Your task to perform on an android device: Open Reddit.com Image 0: 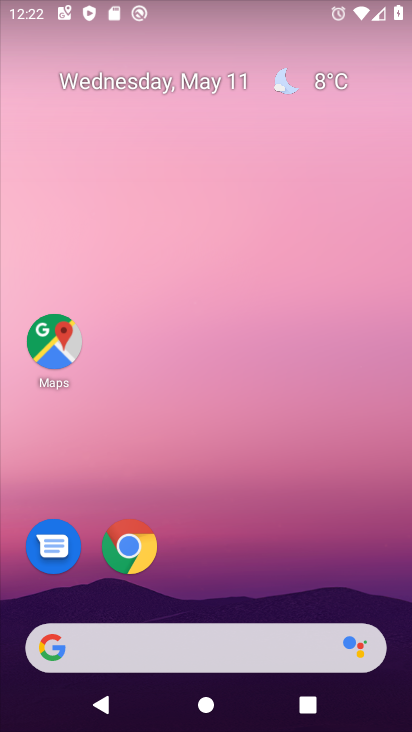
Step 0: drag from (241, 661) to (248, 158)
Your task to perform on an android device: Open Reddit.com Image 1: 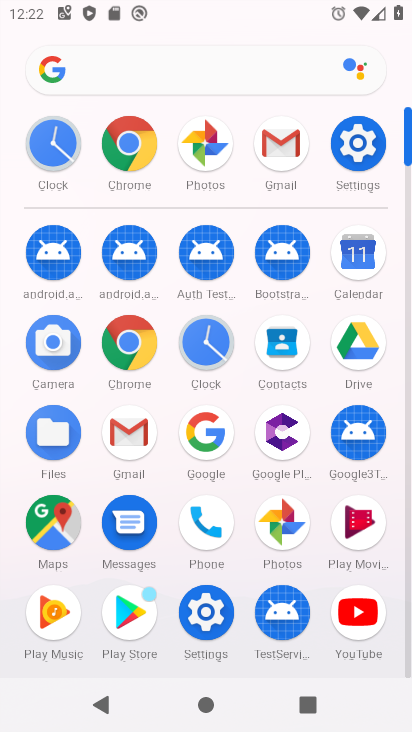
Step 1: click (137, 155)
Your task to perform on an android device: Open Reddit.com Image 2: 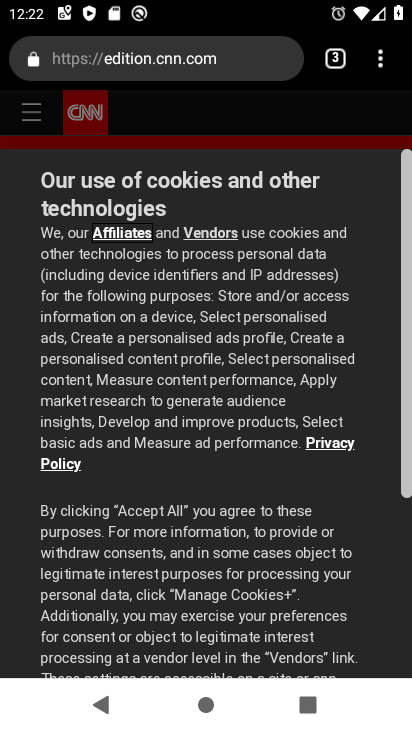
Step 2: drag from (381, 69) to (304, 108)
Your task to perform on an android device: Open Reddit.com Image 3: 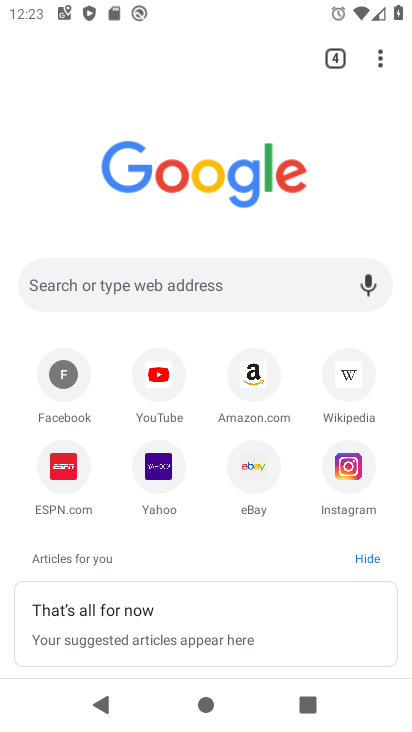
Step 3: click (218, 286)
Your task to perform on an android device: Open Reddit.com Image 4: 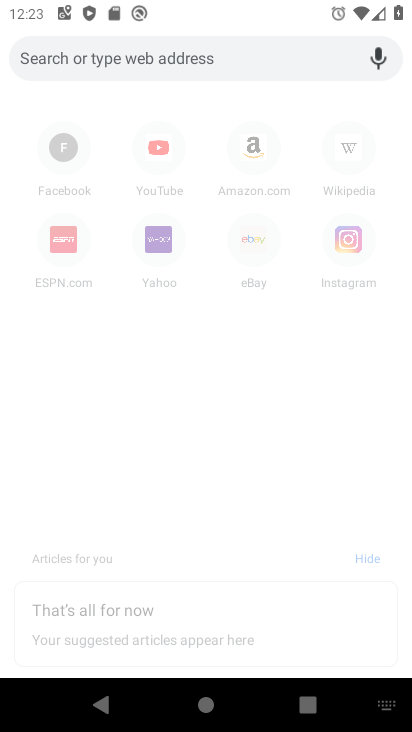
Step 4: type "reddit.com"
Your task to perform on an android device: Open Reddit.com Image 5: 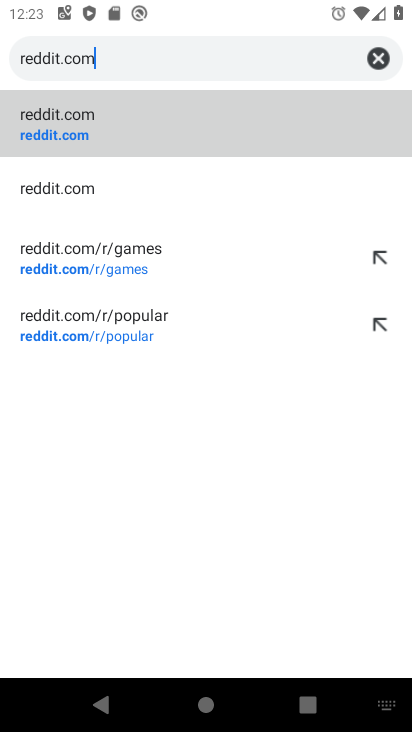
Step 5: click (64, 144)
Your task to perform on an android device: Open Reddit.com Image 6: 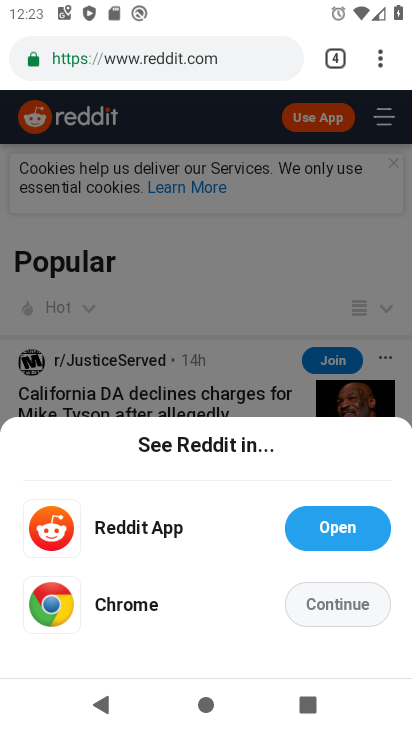
Step 6: task complete